Your task to perform on an android device: Add "usb-b" to the cart on costco Image 0: 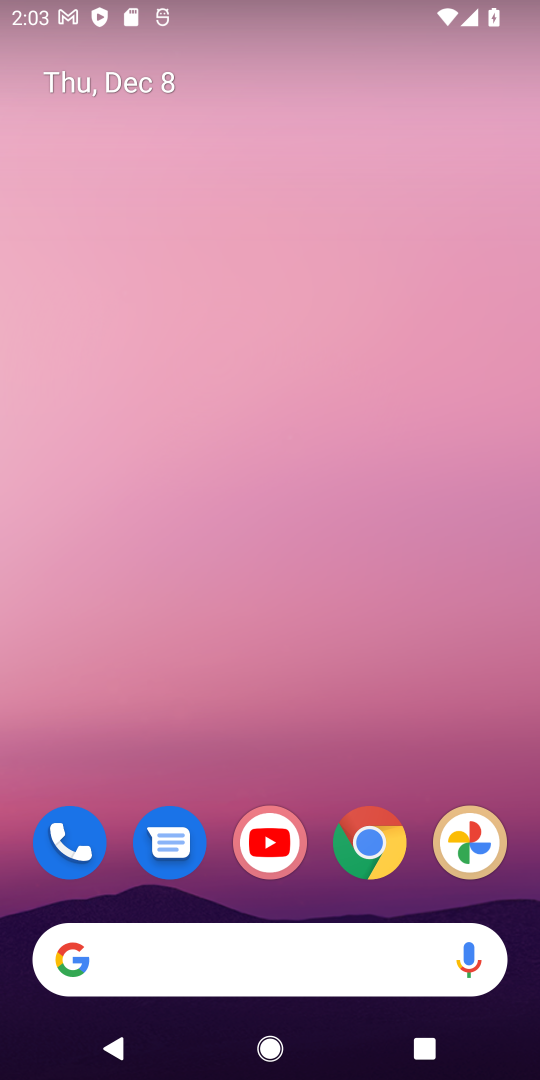
Step 0: drag from (162, 825) to (136, 449)
Your task to perform on an android device: Add "usb-b" to the cart on costco Image 1: 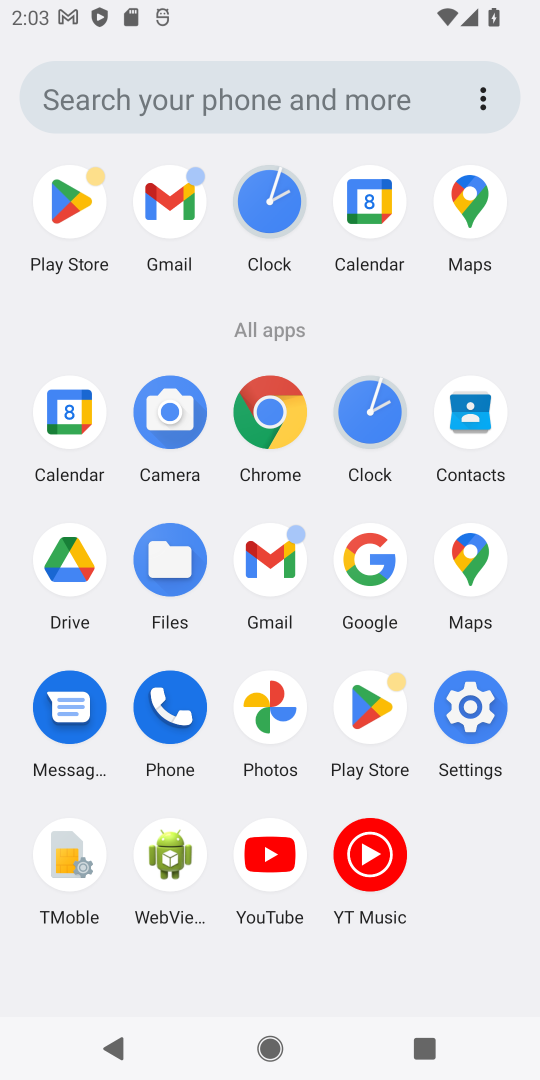
Step 1: click (375, 565)
Your task to perform on an android device: Add "usb-b" to the cart on costco Image 2: 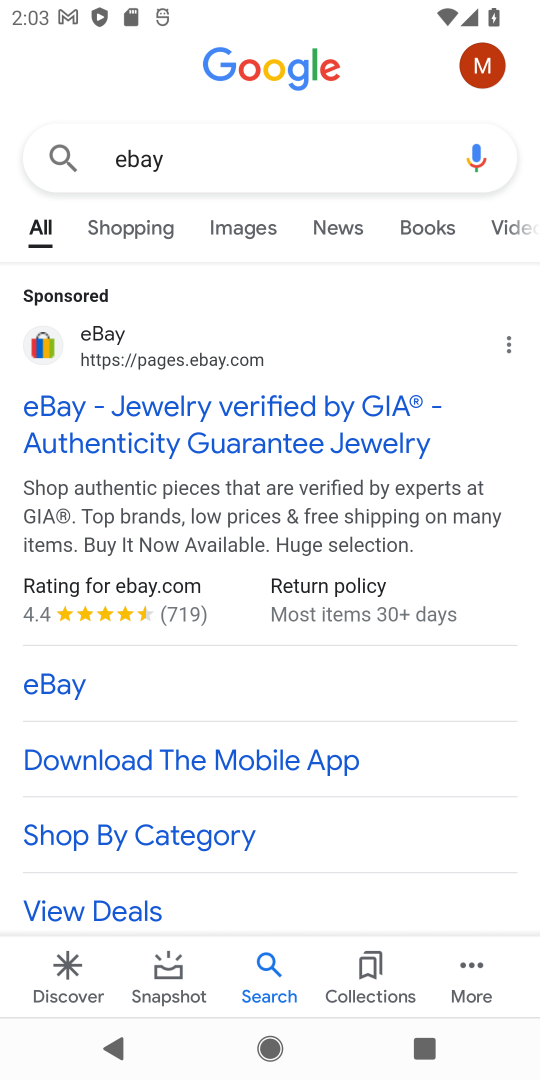
Step 2: click (147, 153)
Your task to perform on an android device: Add "usb-b" to the cart on costco Image 3: 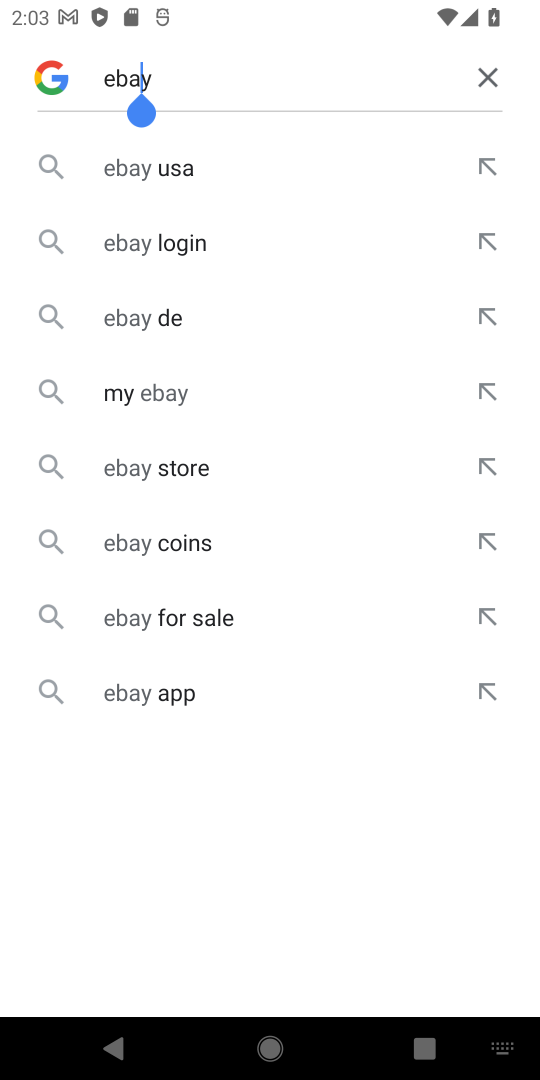
Step 3: click (488, 88)
Your task to perform on an android device: Add "usb-b" to the cart on costco Image 4: 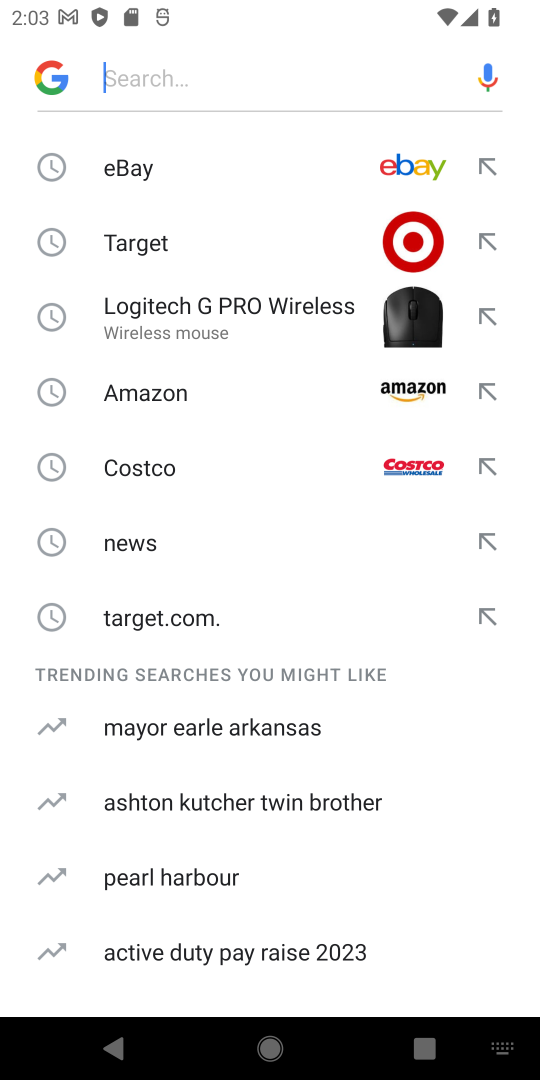
Step 4: click (145, 81)
Your task to perform on an android device: Add "usb-b" to the cart on costco Image 5: 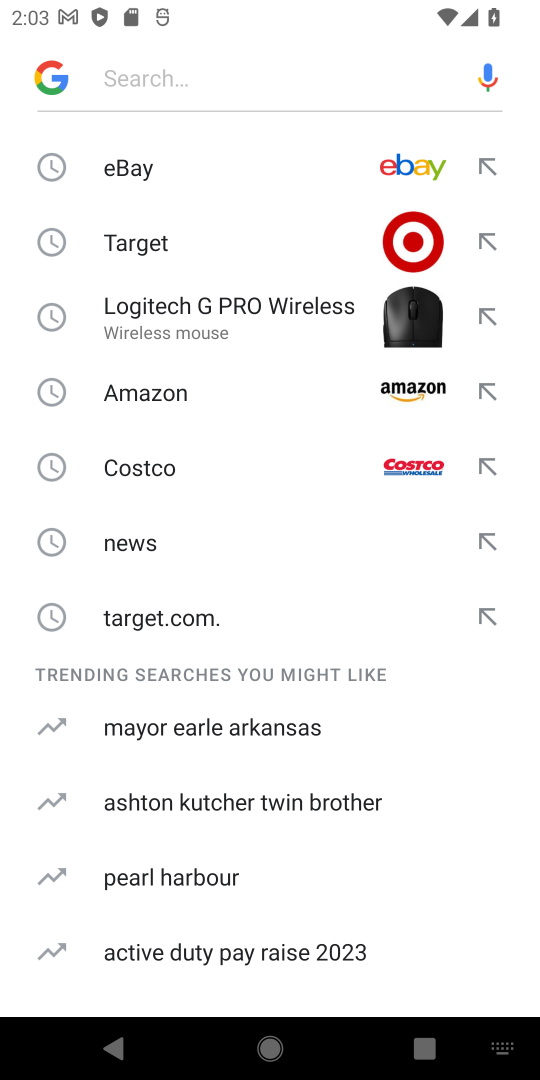
Step 5: click (413, 463)
Your task to perform on an android device: Add "usb-b" to the cart on costco Image 6: 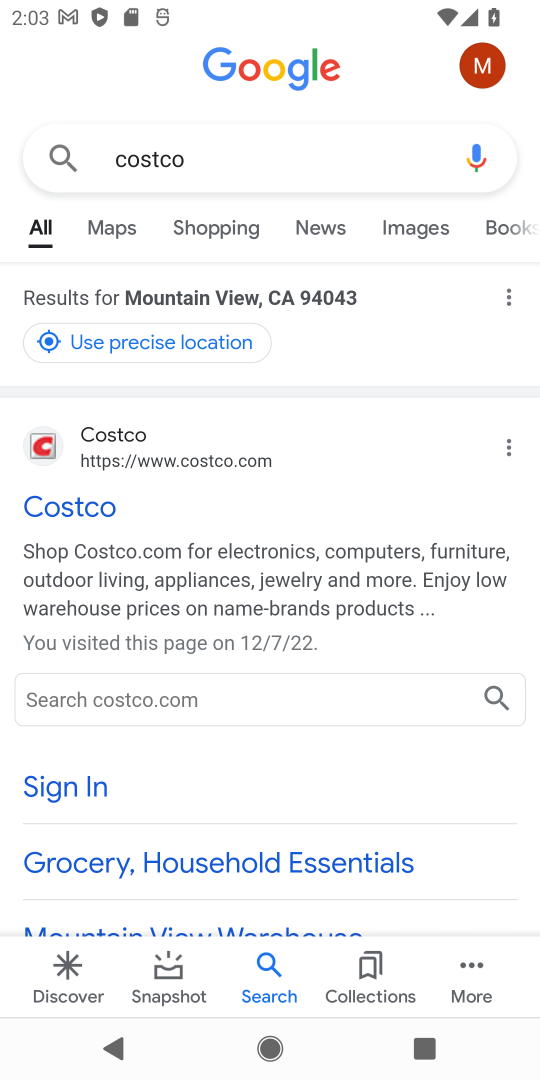
Step 6: click (46, 500)
Your task to perform on an android device: Add "usb-b" to the cart on costco Image 7: 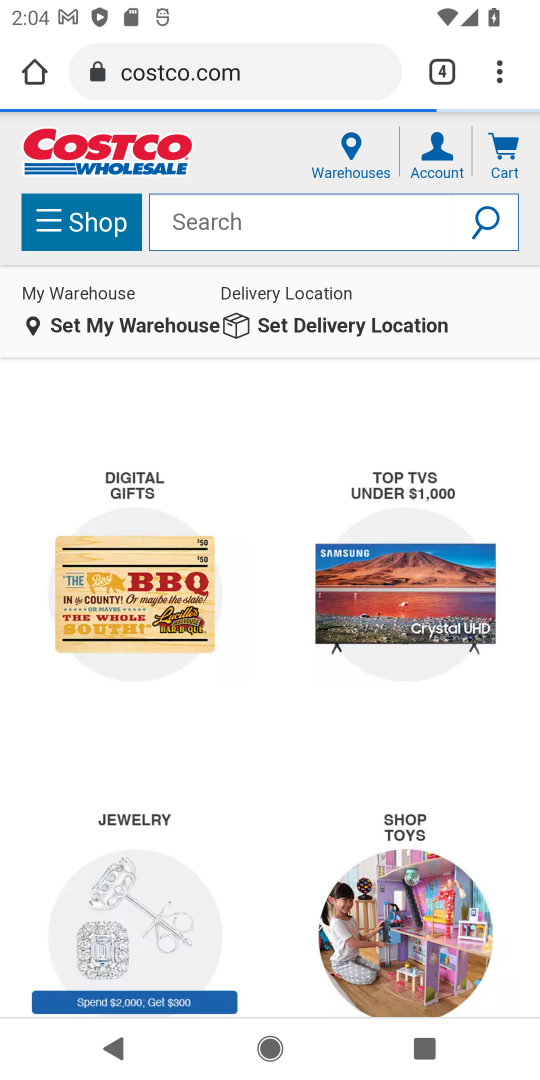
Step 7: click (214, 216)
Your task to perform on an android device: Add "usb-b" to the cart on costco Image 8: 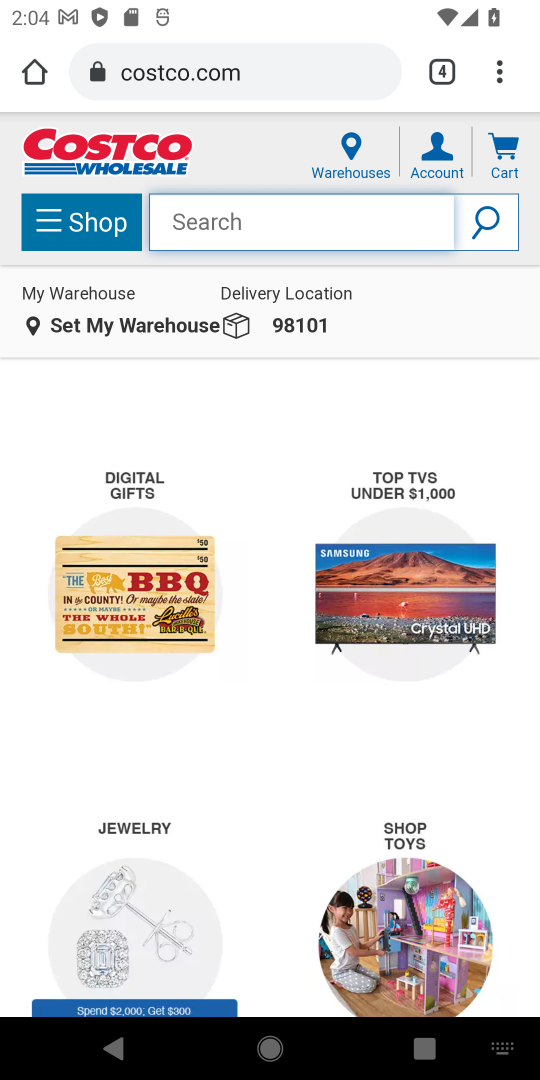
Step 8: click (165, 220)
Your task to perform on an android device: Add "usb-b" to the cart on costco Image 9: 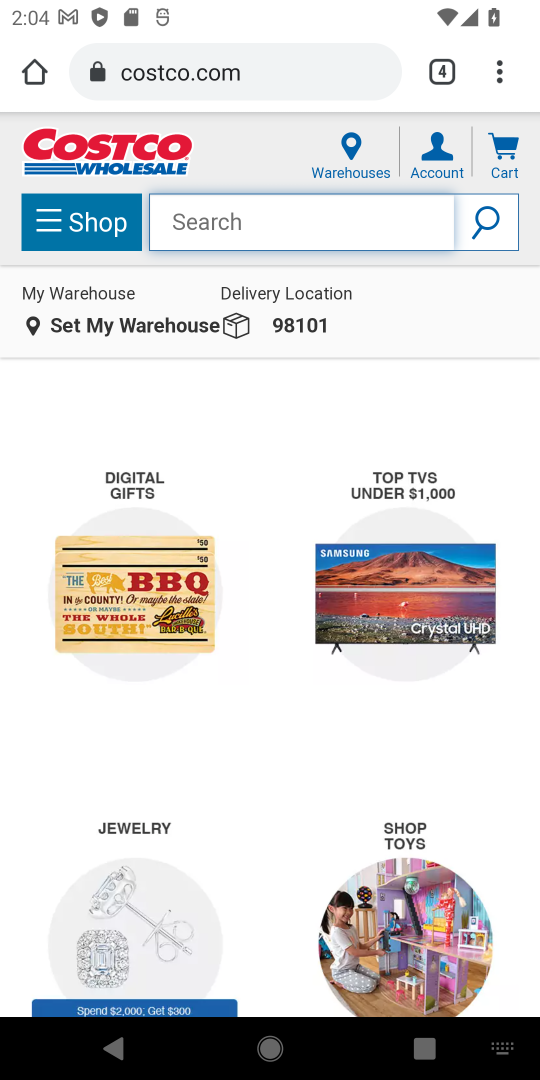
Step 9: type "usb-b"
Your task to perform on an android device: Add "usb-b" to the cart on costco Image 10: 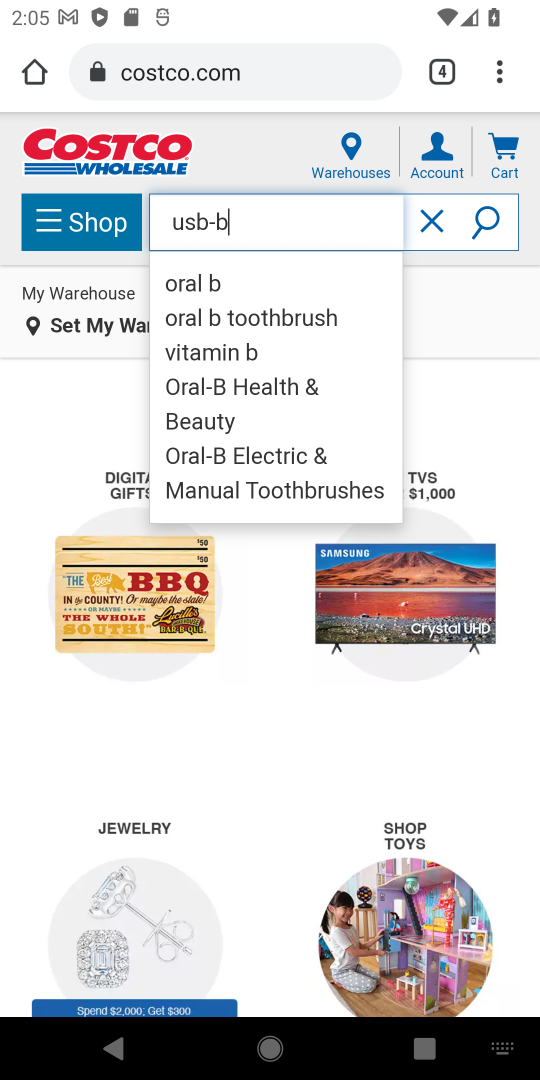
Step 10: click (482, 217)
Your task to perform on an android device: Add "usb-b" to the cart on costco Image 11: 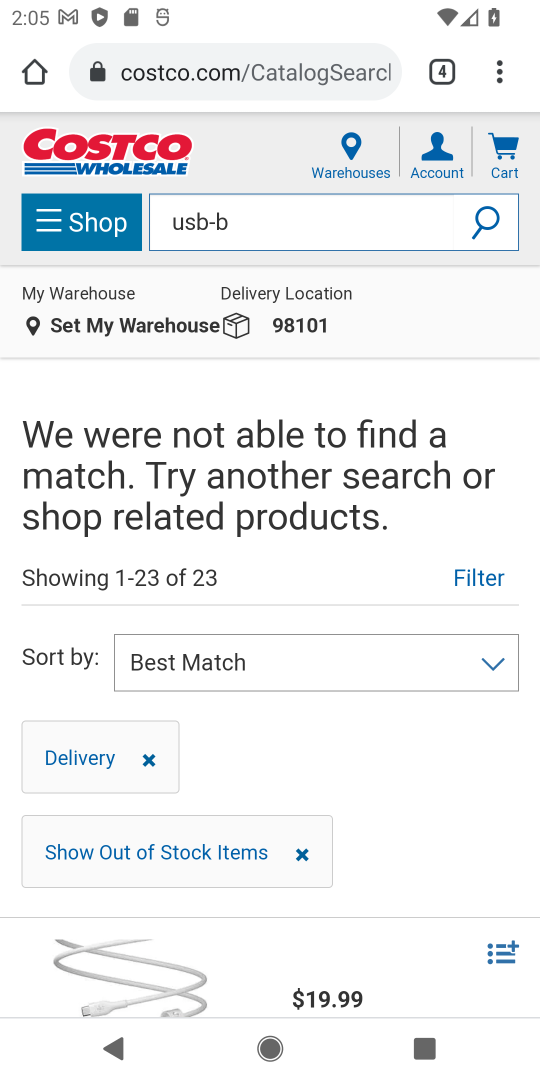
Step 11: drag from (387, 774) to (301, 97)
Your task to perform on an android device: Add "usb-b" to the cart on costco Image 12: 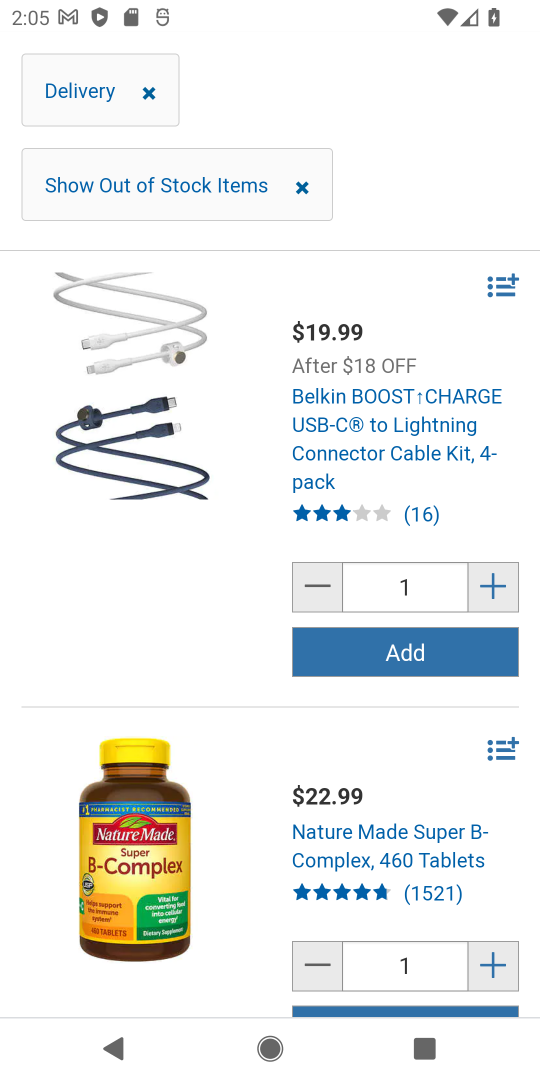
Step 12: click (395, 661)
Your task to perform on an android device: Add "usb-b" to the cart on costco Image 13: 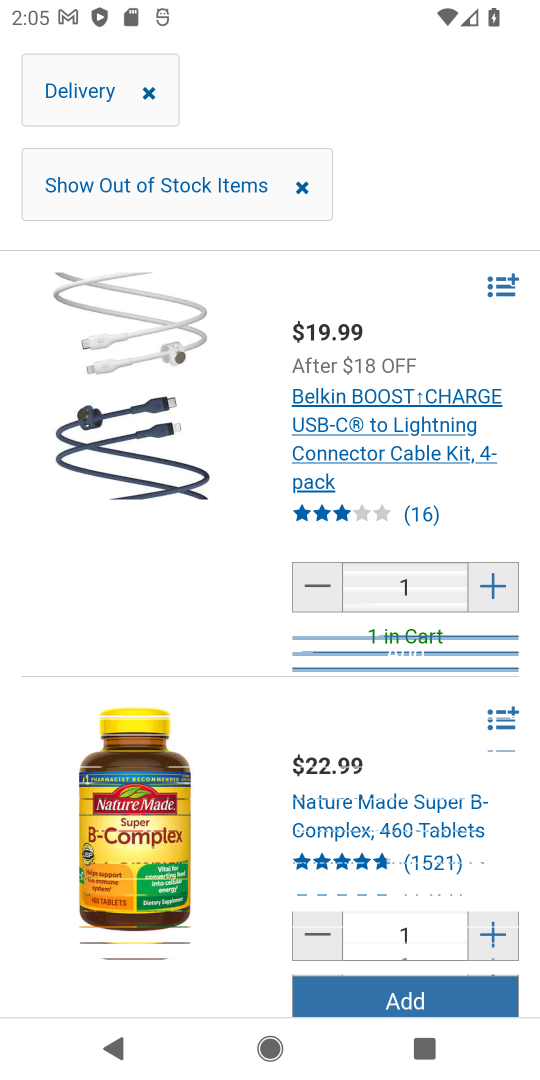
Step 13: drag from (370, 98) to (526, 633)
Your task to perform on an android device: Add "usb-b" to the cart on costco Image 14: 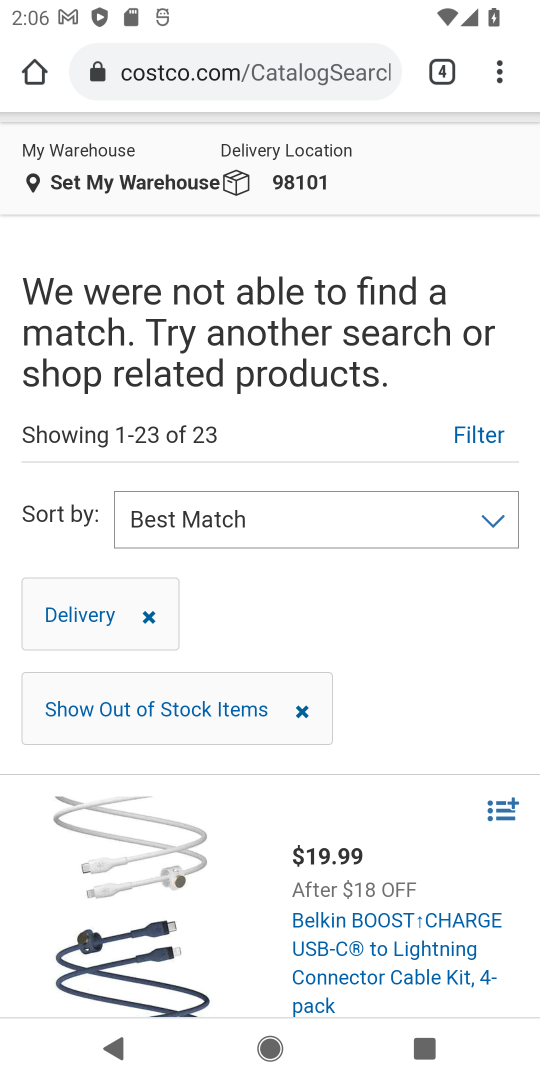
Step 14: drag from (363, 179) to (330, 617)
Your task to perform on an android device: Add "usb-b" to the cart on costco Image 15: 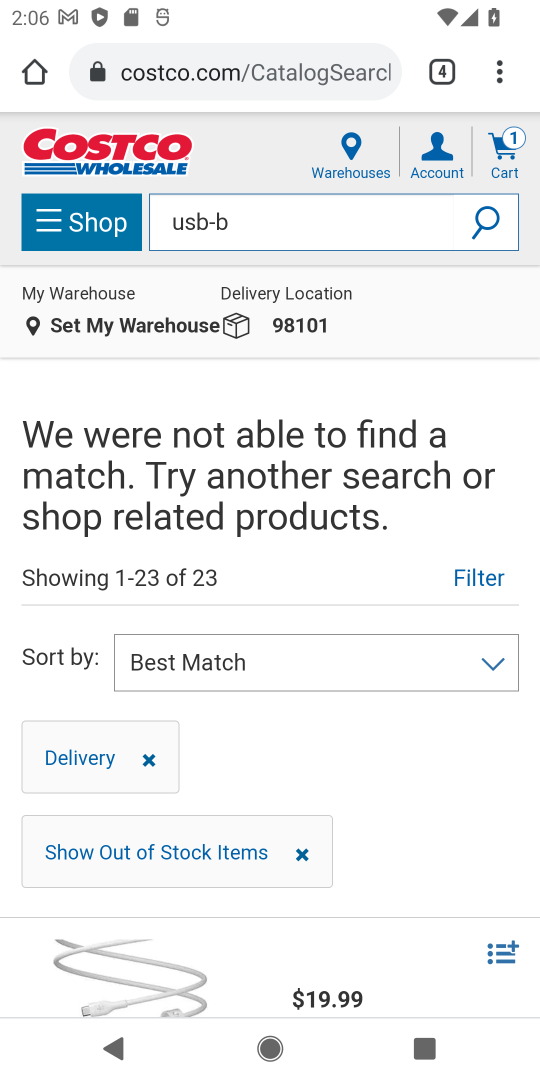
Step 15: click (496, 147)
Your task to perform on an android device: Add "usb-b" to the cart on costco Image 16: 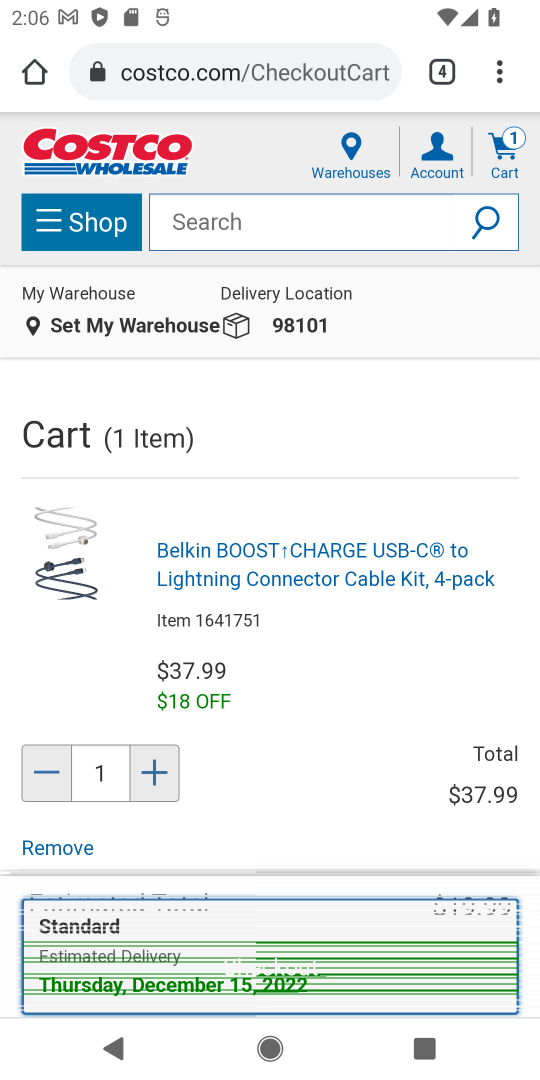
Step 16: drag from (291, 717) to (250, 235)
Your task to perform on an android device: Add "usb-b" to the cart on costco Image 17: 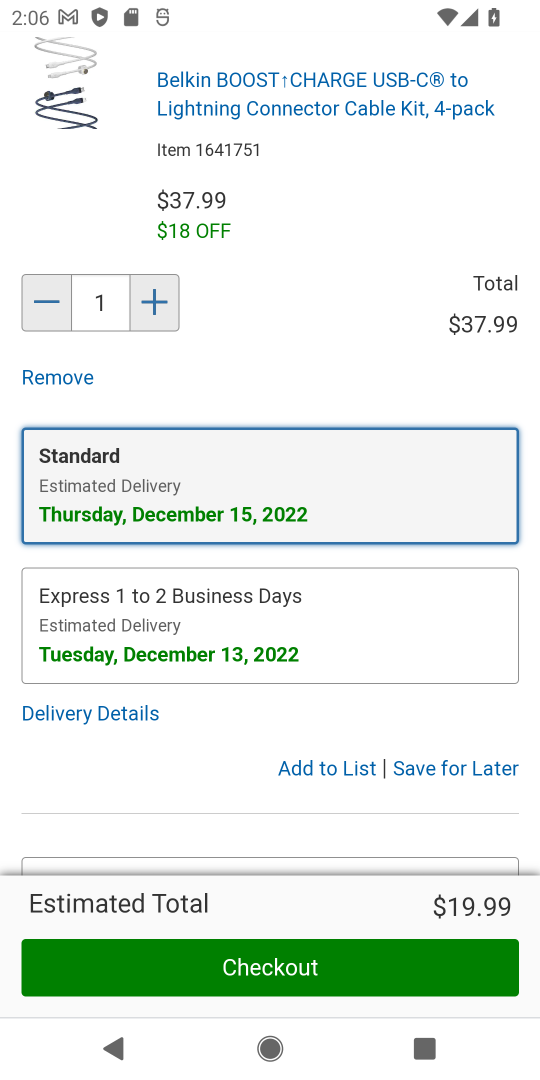
Step 17: click (266, 982)
Your task to perform on an android device: Add "usb-b" to the cart on costco Image 18: 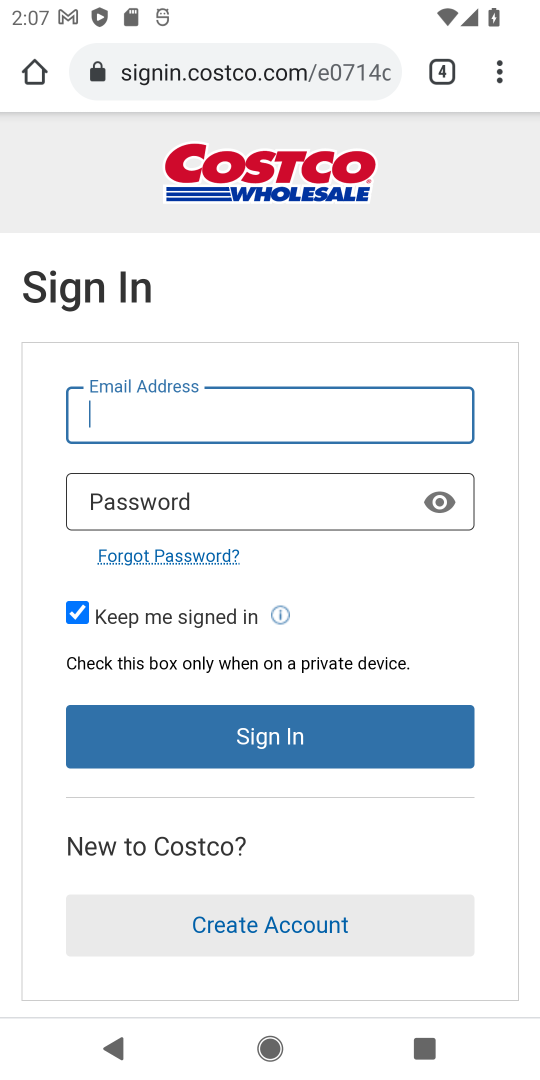
Step 18: task complete